Your task to perform on an android device: Go to network settings Image 0: 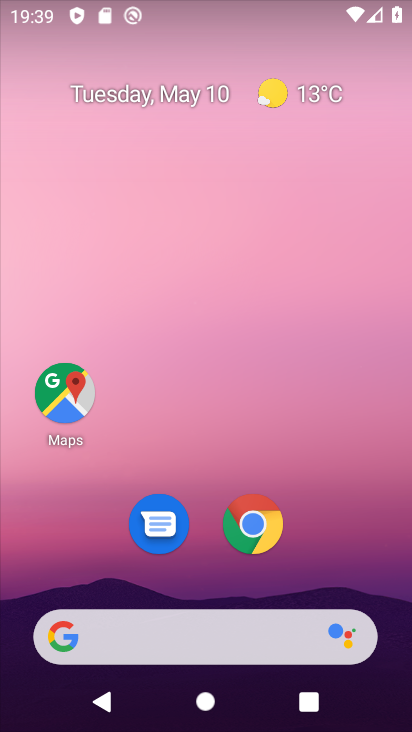
Step 0: drag from (360, 557) to (303, 14)
Your task to perform on an android device: Go to network settings Image 1: 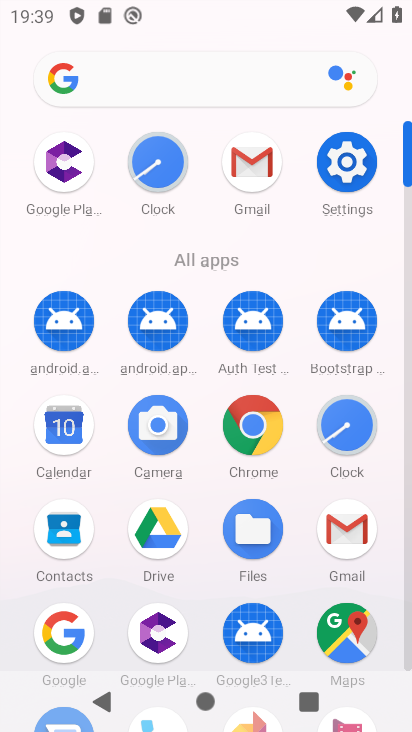
Step 1: click (348, 160)
Your task to perform on an android device: Go to network settings Image 2: 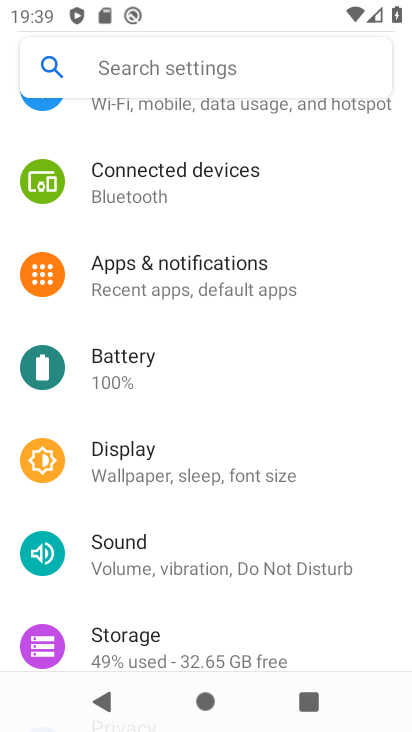
Step 2: drag from (233, 221) to (201, 528)
Your task to perform on an android device: Go to network settings Image 3: 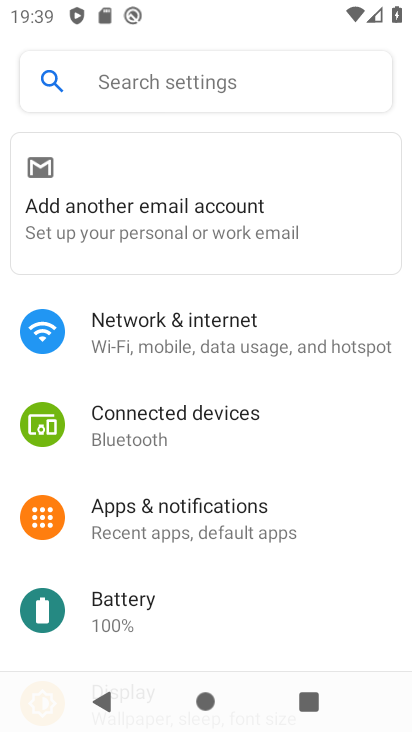
Step 3: click (227, 333)
Your task to perform on an android device: Go to network settings Image 4: 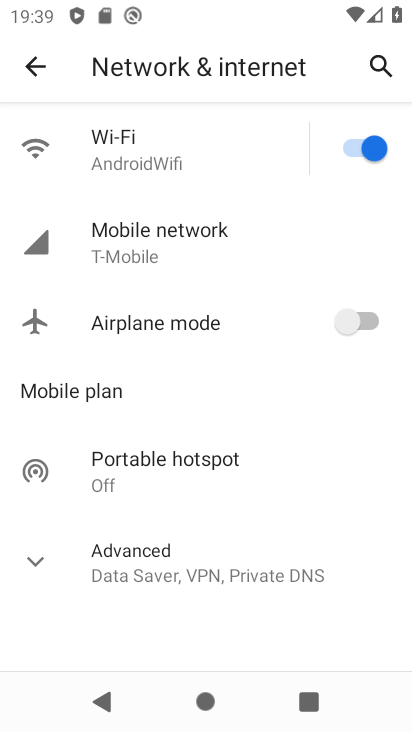
Step 4: task complete